Your task to perform on an android device: Go to Yahoo.com Image 0: 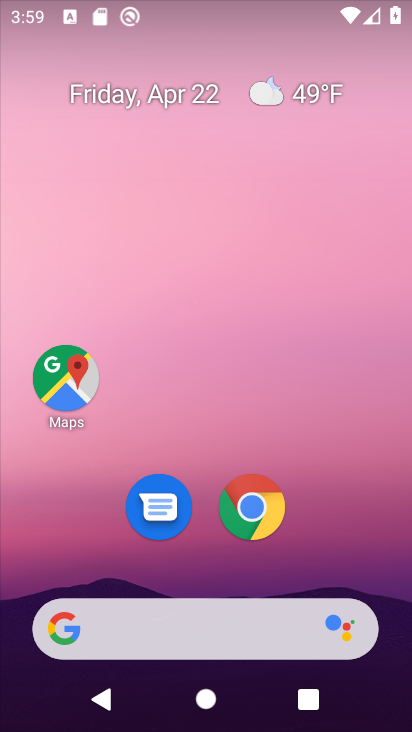
Step 0: click (251, 502)
Your task to perform on an android device: Go to Yahoo.com Image 1: 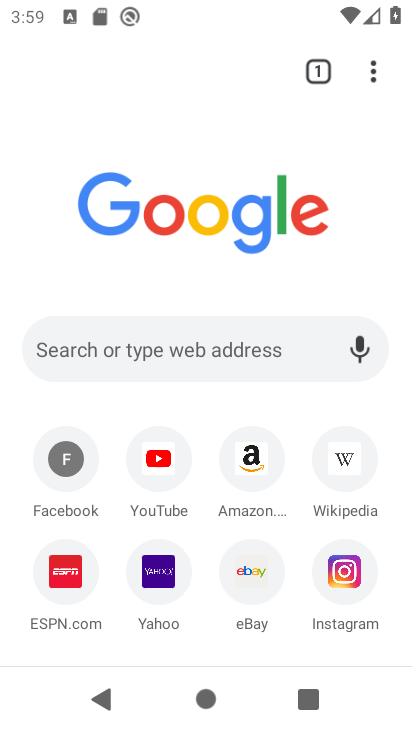
Step 1: click (165, 336)
Your task to perform on an android device: Go to Yahoo.com Image 2: 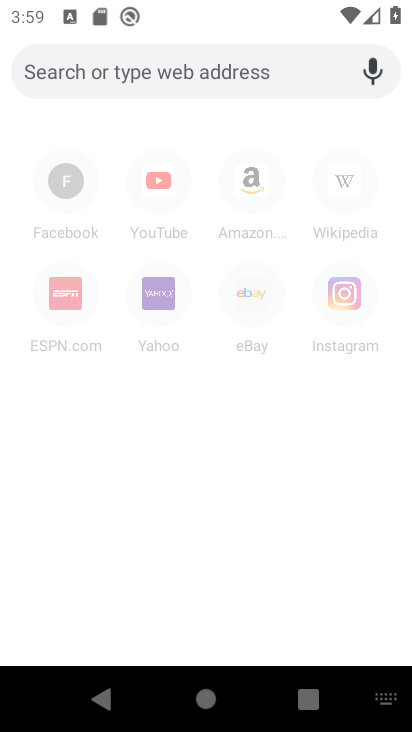
Step 2: type "yahoo.com"
Your task to perform on an android device: Go to Yahoo.com Image 3: 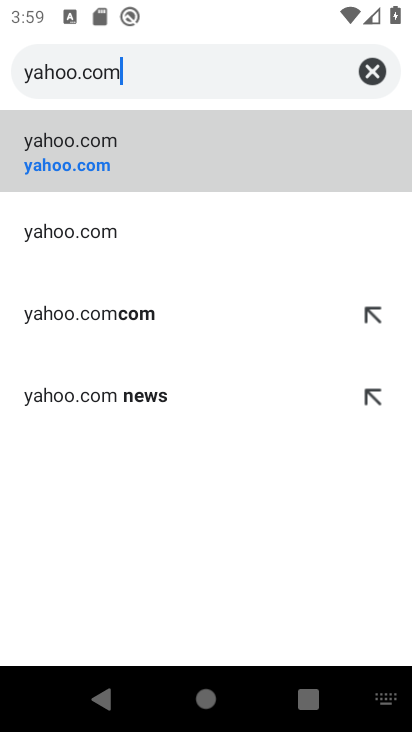
Step 3: click (56, 140)
Your task to perform on an android device: Go to Yahoo.com Image 4: 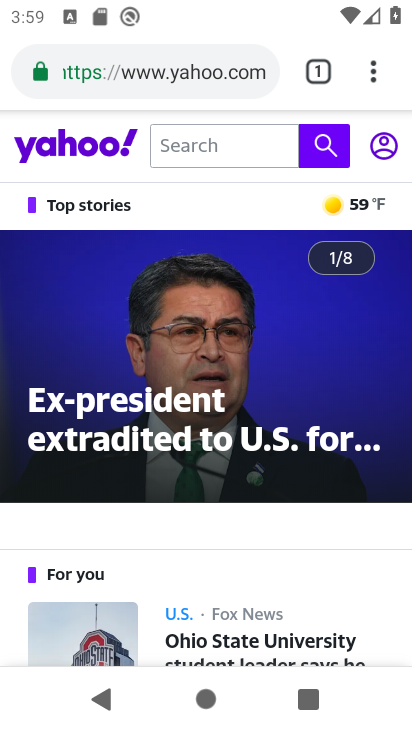
Step 4: task complete